Your task to perform on an android device: turn notification dots on Image 0: 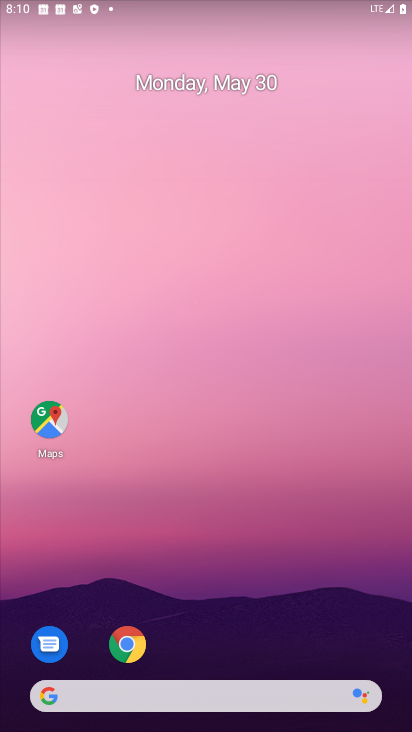
Step 0: drag from (205, 628) to (206, 220)
Your task to perform on an android device: turn notification dots on Image 1: 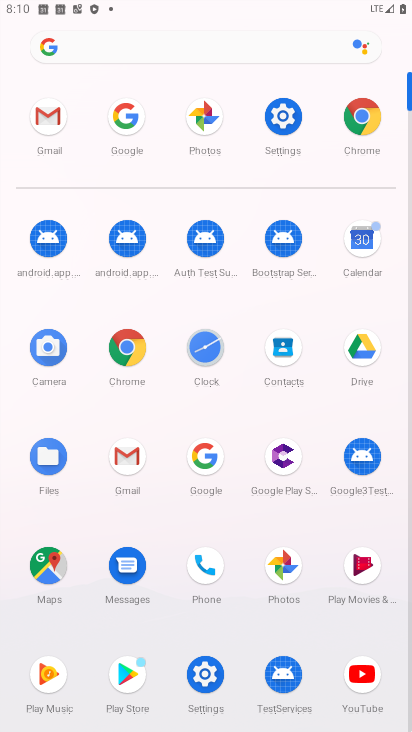
Step 1: click (283, 116)
Your task to perform on an android device: turn notification dots on Image 2: 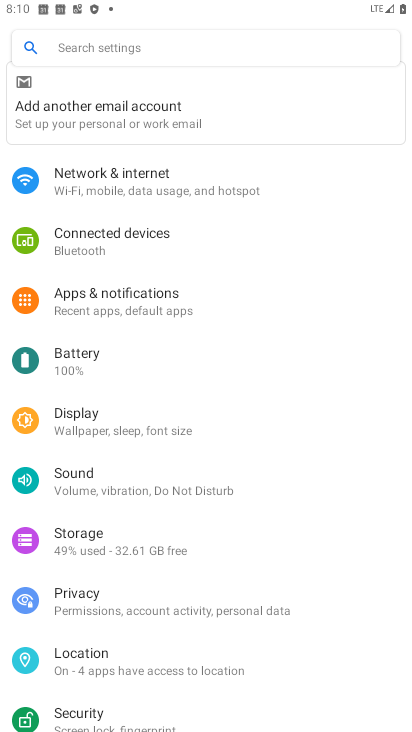
Step 2: click (127, 294)
Your task to perform on an android device: turn notification dots on Image 3: 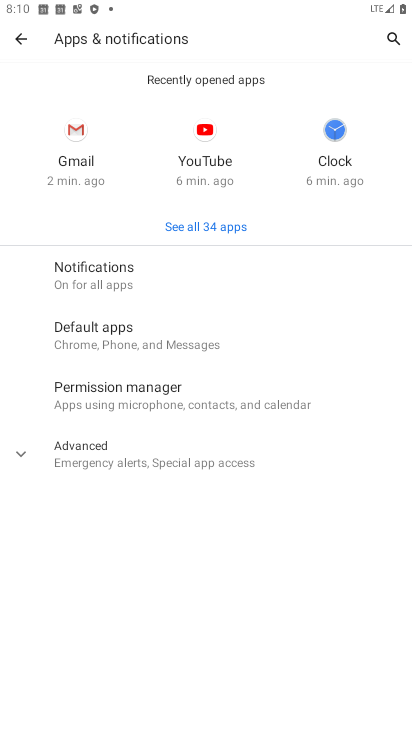
Step 3: click (105, 272)
Your task to perform on an android device: turn notification dots on Image 4: 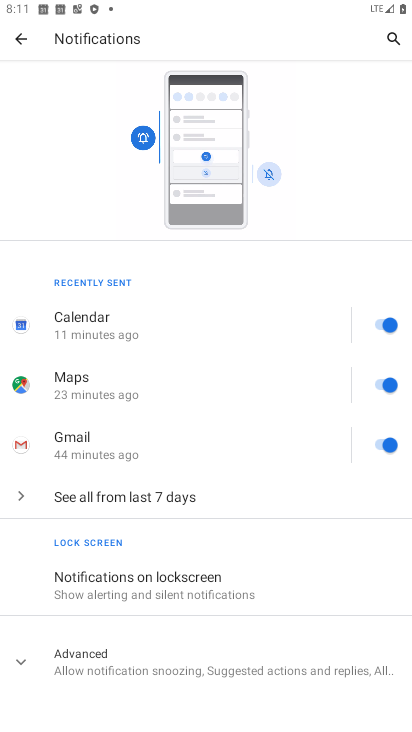
Step 4: click (140, 655)
Your task to perform on an android device: turn notification dots on Image 5: 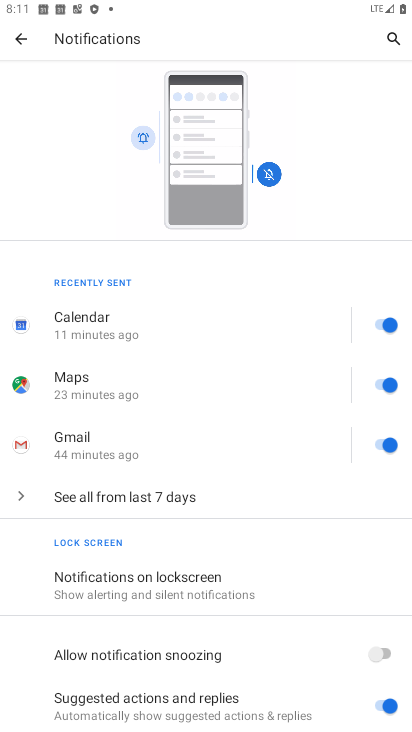
Step 5: task complete